Your task to perform on an android device: What is the news today? Image 0: 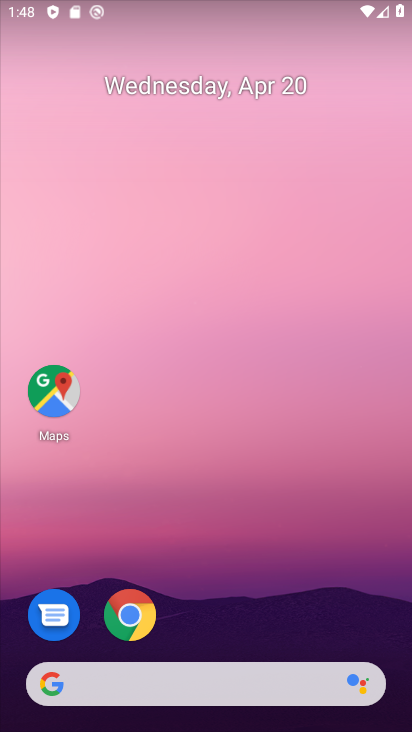
Step 0: drag from (223, 601) to (298, 75)
Your task to perform on an android device: What is the news today? Image 1: 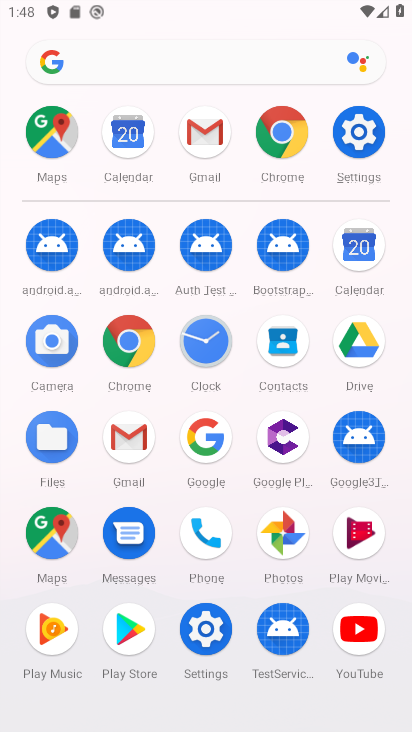
Step 1: click (86, 67)
Your task to perform on an android device: What is the news today? Image 2: 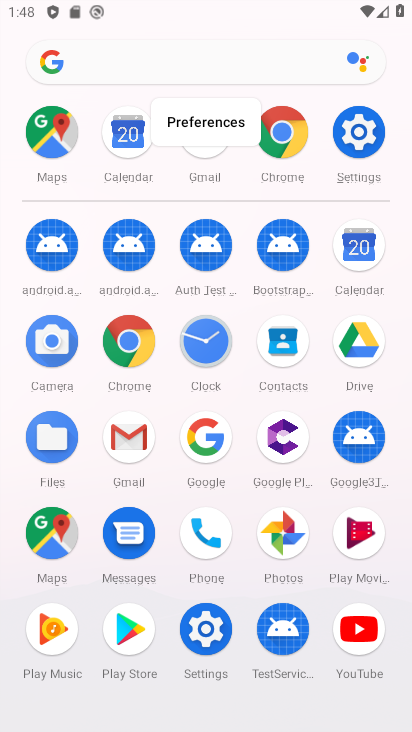
Step 2: click (86, 67)
Your task to perform on an android device: What is the news today? Image 3: 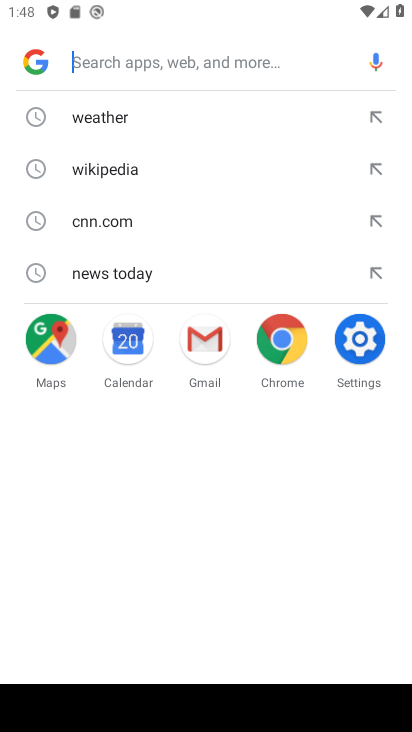
Step 3: type "news today"
Your task to perform on an android device: What is the news today? Image 4: 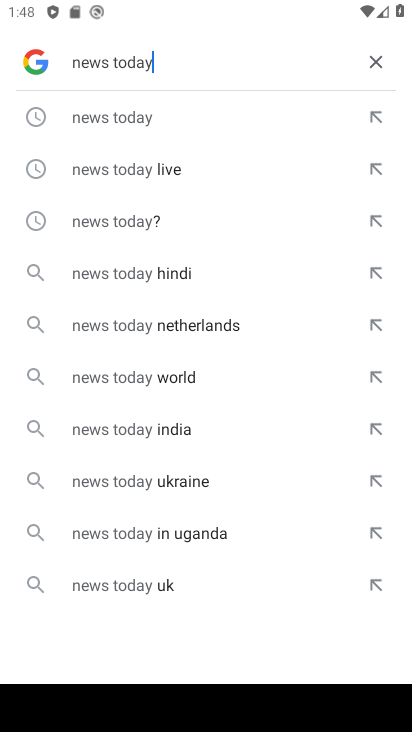
Step 4: click (58, 129)
Your task to perform on an android device: What is the news today? Image 5: 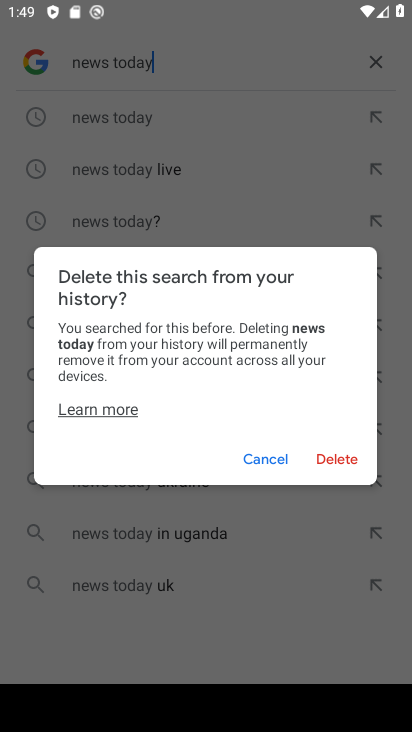
Step 5: click (262, 455)
Your task to perform on an android device: What is the news today? Image 6: 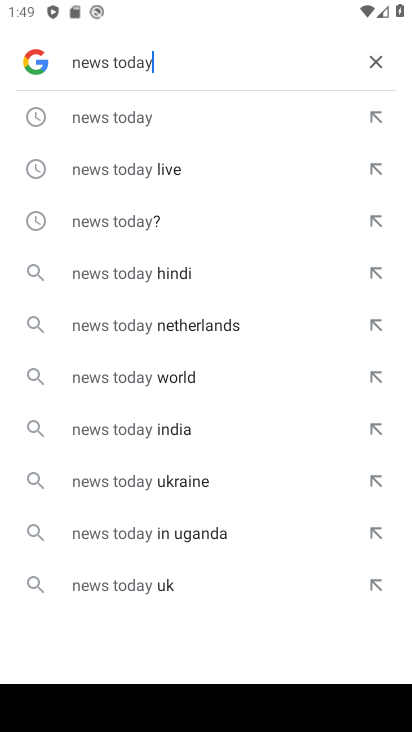
Step 6: click (84, 132)
Your task to perform on an android device: What is the news today? Image 7: 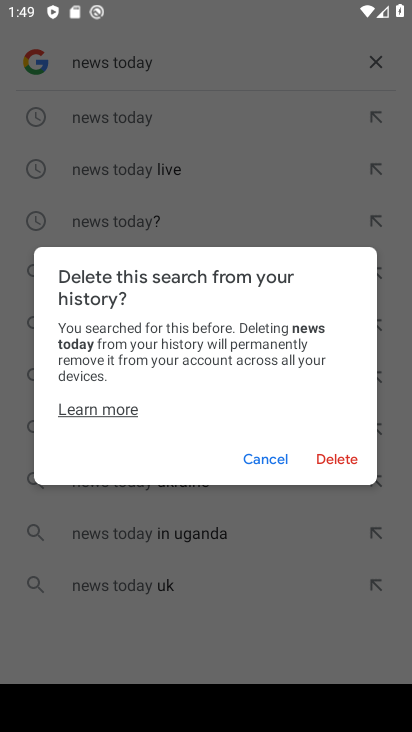
Step 7: click (248, 461)
Your task to perform on an android device: What is the news today? Image 8: 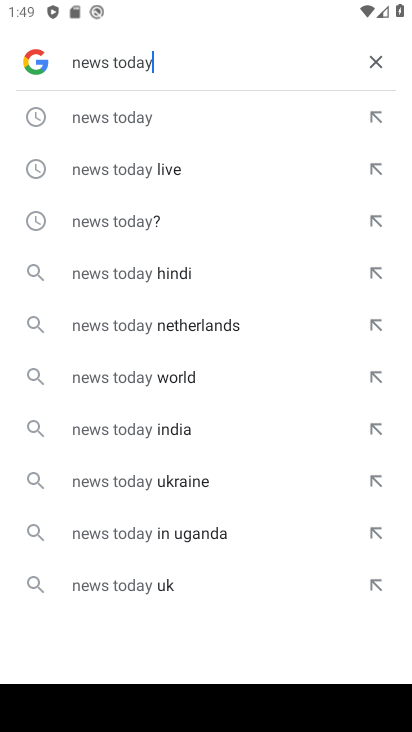
Step 8: click (121, 104)
Your task to perform on an android device: What is the news today? Image 9: 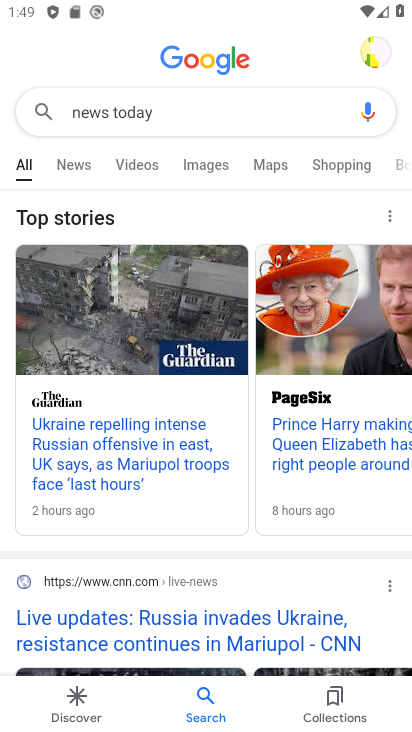
Step 9: click (79, 165)
Your task to perform on an android device: What is the news today? Image 10: 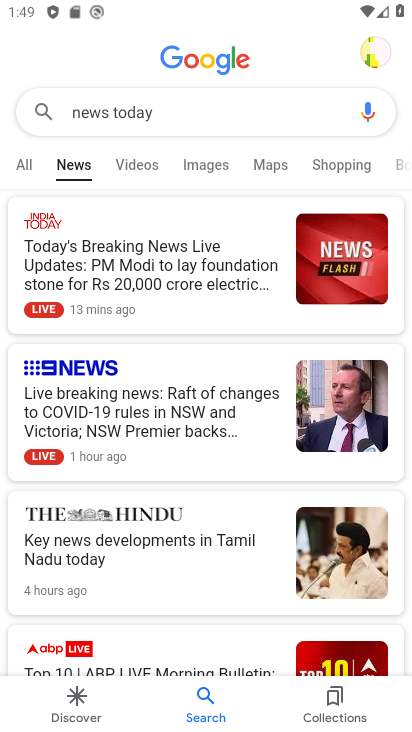
Step 10: task complete